Your task to perform on an android device: Search for seafood restaurants on Google Maps Image 0: 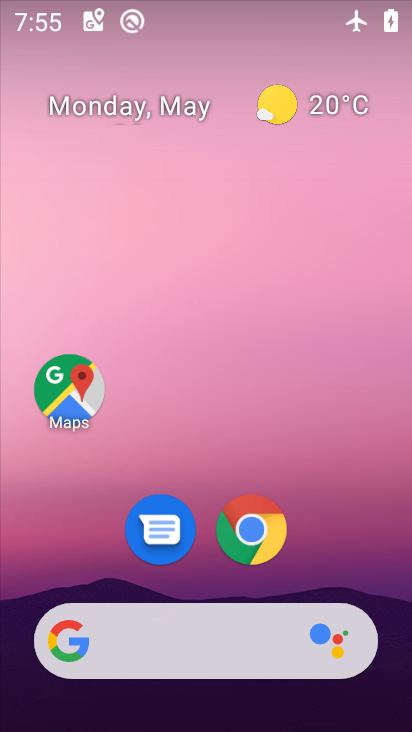
Step 0: click (81, 407)
Your task to perform on an android device: Search for seafood restaurants on Google Maps Image 1: 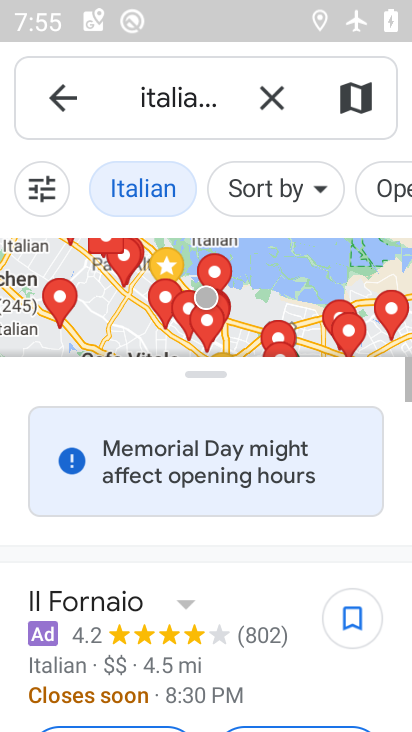
Step 1: click (273, 103)
Your task to perform on an android device: Search for seafood restaurants on Google Maps Image 2: 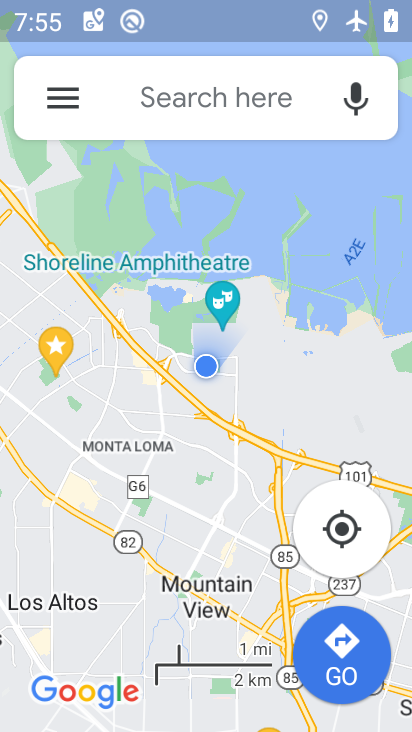
Step 2: drag from (332, 11) to (221, 568)
Your task to perform on an android device: Search for seafood restaurants on Google Maps Image 3: 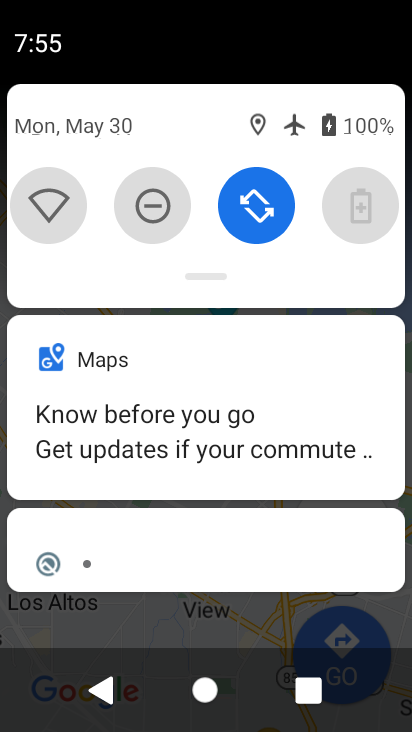
Step 3: drag from (272, 277) to (210, 570)
Your task to perform on an android device: Search for seafood restaurants on Google Maps Image 4: 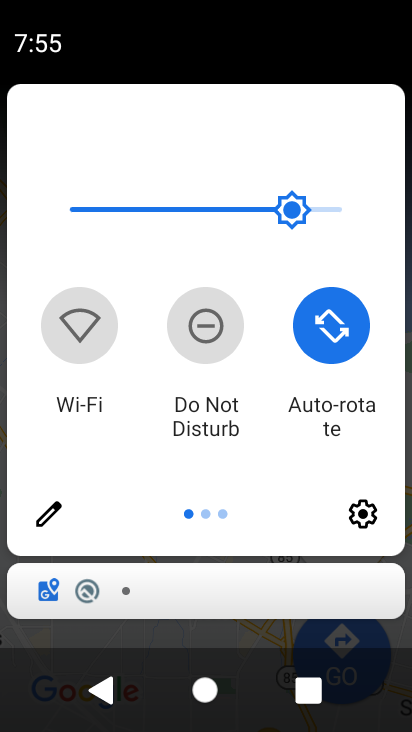
Step 4: drag from (336, 470) to (2, 379)
Your task to perform on an android device: Search for seafood restaurants on Google Maps Image 5: 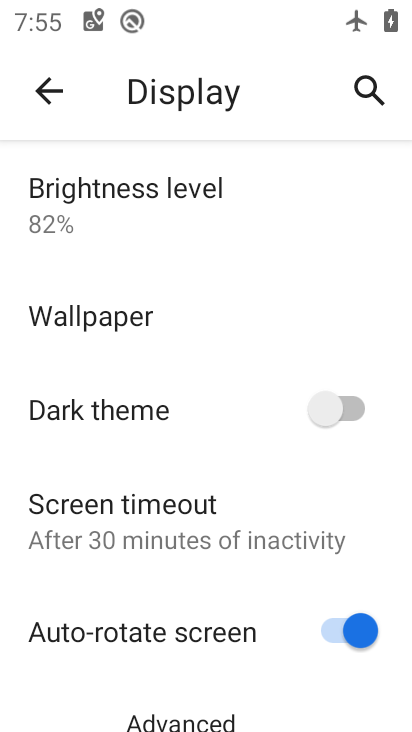
Step 5: click (46, 101)
Your task to perform on an android device: Search for seafood restaurants on Google Maps Image 6: 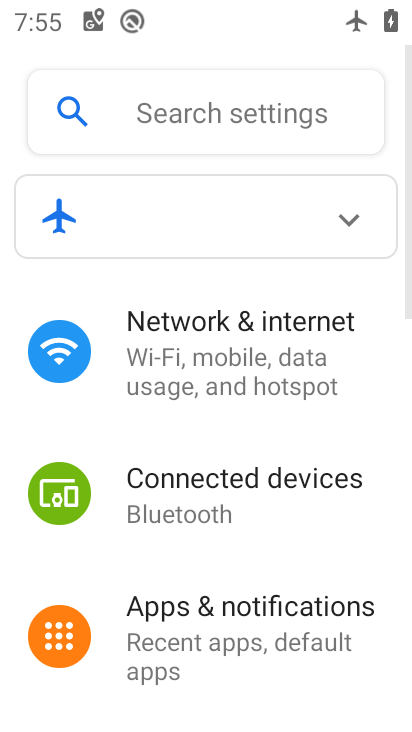
Step 6: click (205, 337)
Your task to perform on an android device: Search for seafood restaurants on Google Maps Image 7: 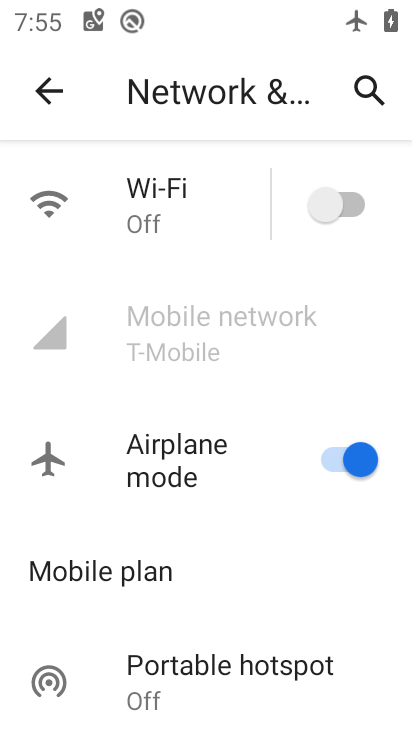
Step 7: click (375, 463)
Your task to perform on an android device: Search for seafood restaurants on Google Maps Image 8: 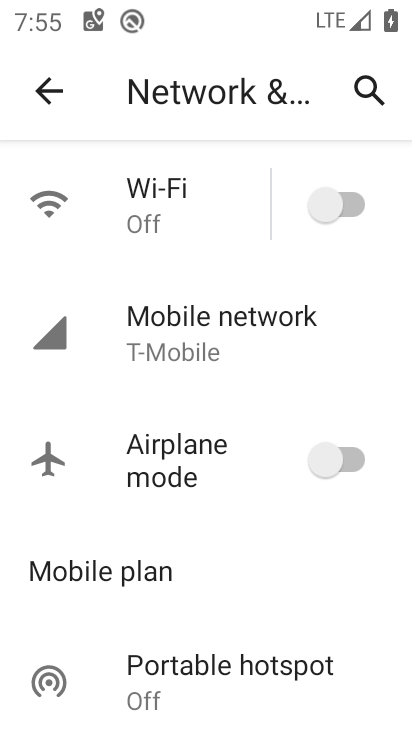
Step 8: press home button
Your task to perform on an android device: Search for seafood restaurants on Google Maps Image 9: 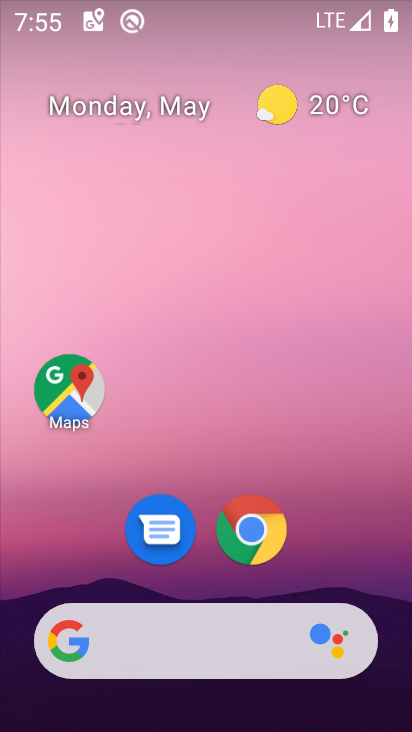
Step 9: click (73, 380)
Your task to perform on an android device: Search for seafood restaurants on Google Maps Image 10: 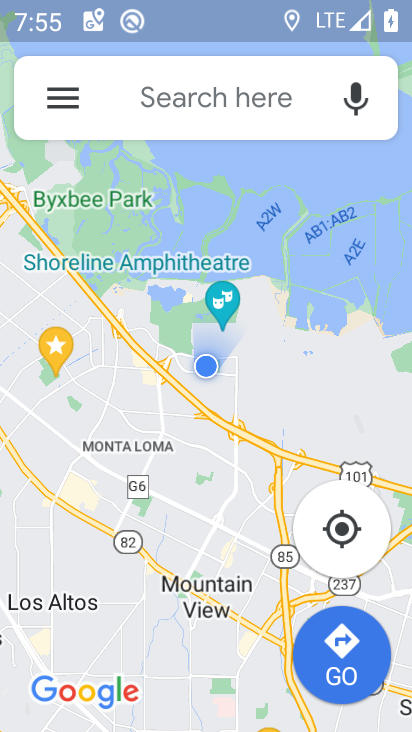
Step 10: click (190, 94)
Your task to perform on an android device: Search for seafood restaurants on Google Maps Image 11: 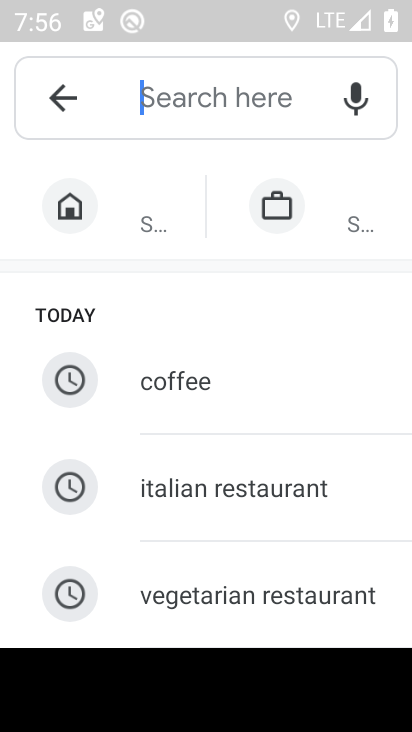
Step 11: drag from (178, 567) to (334, 176)
Your task to perform on an android device: Search for seafood restaurants on Google Maps Image 12: 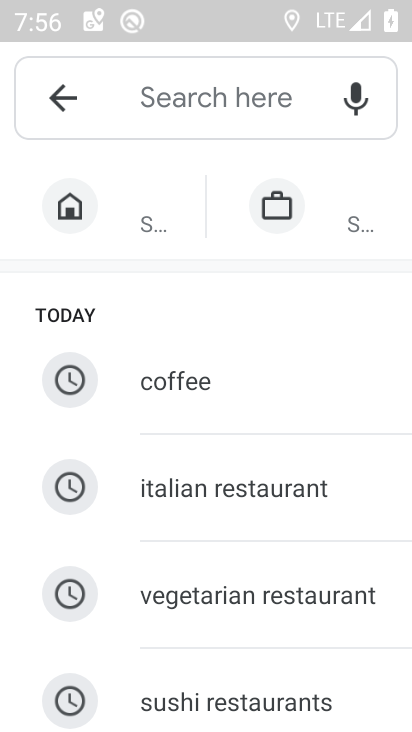
Step 12: drag from (73, 697) to (287, 272)
Your task to perform on an android device: Search for seafood restaurants on Google Maps Image 13: 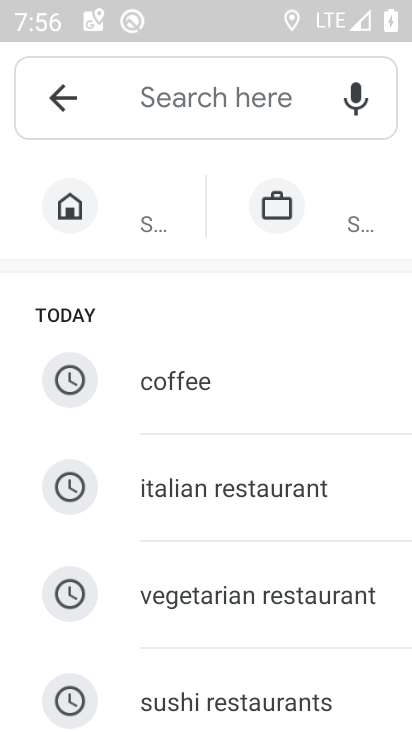
Step 13: drag from (270, 710) to (366, 387)
Your task to perform on an android device: Search for seafood restaurants on Google Maps Image 14: 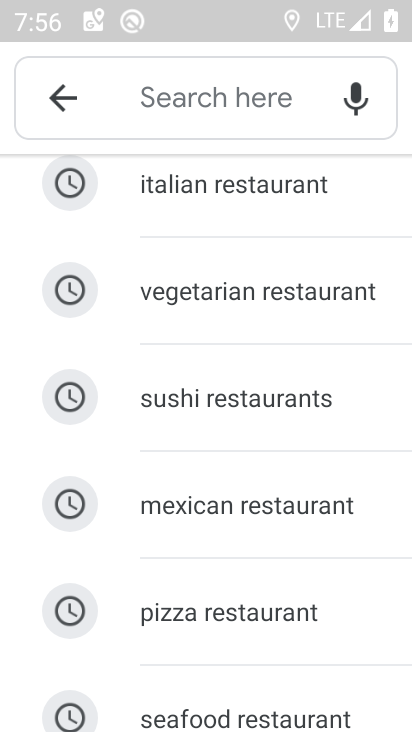
Step 14: drag from (25, 593) to (261, 287)
Your task to perform on an android device: Search for seafood restaurants on Google Maps Image 15: 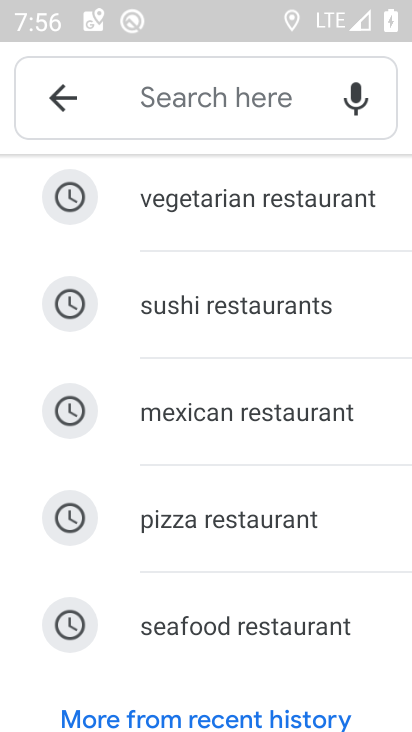
Step 15: click (150, 612)
Your task to perform on an android device: Search for seafood restaurants on Google Maps Image 16: 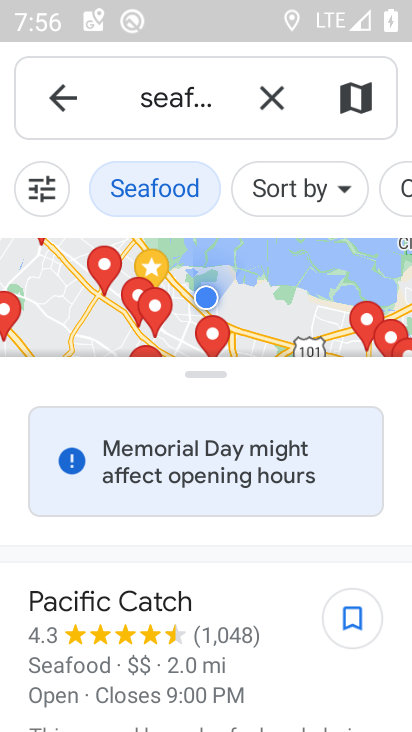
Step 16: task complete